Your task to perform on an android device: Show me the alarms in the clock app Image 0: 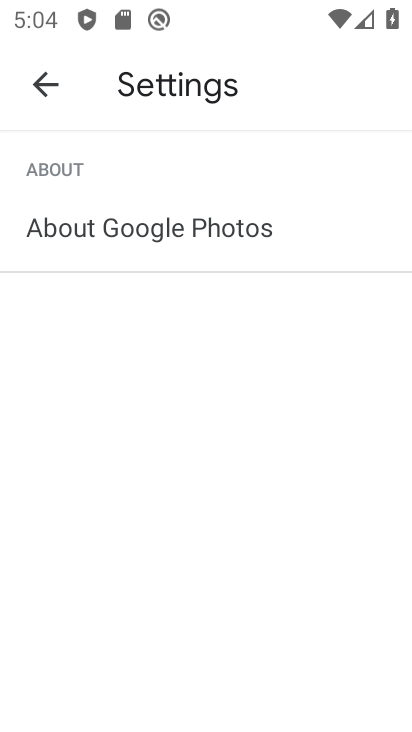
Step 0: press back button
Your task to perform on an android device: Show me the alarms in the clock app Image 1: 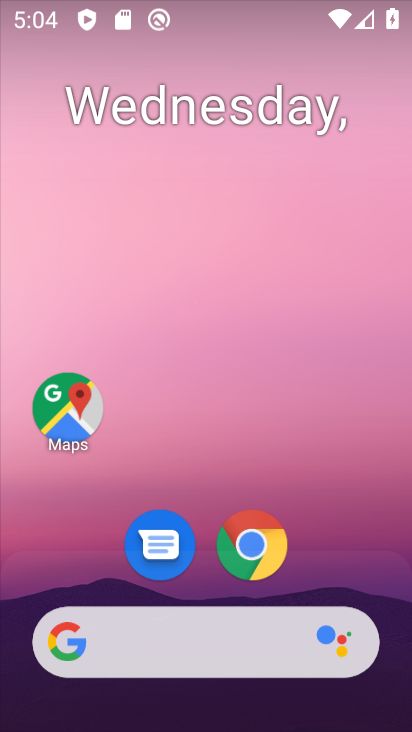
Step 1: drag from (174, 581) to (253, 72)
Your task to perform on an android device: Show me the alarms in the clock app Image 2: 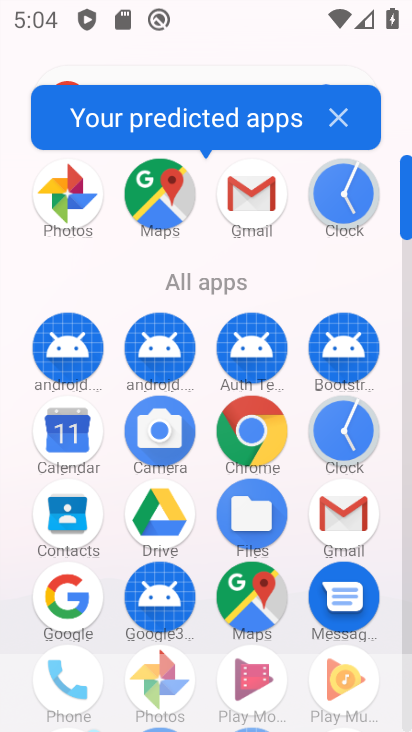
Step 2: click (350, 431)
Your task to perform on an android device: Show me the alarms in the clock app Image 3: 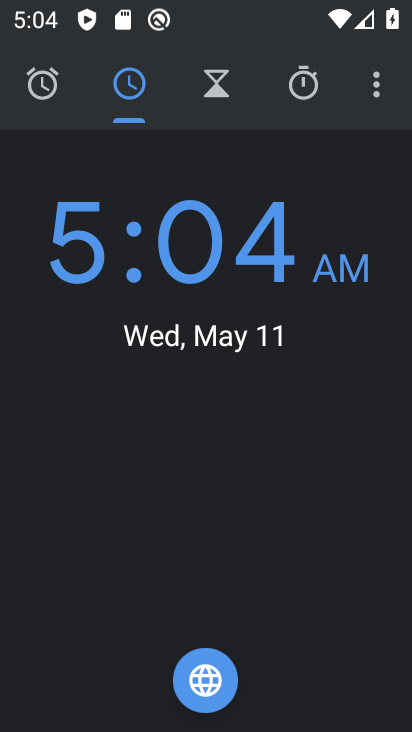
Step 3: click (312, 82)
Your task to perform on an android device: Show me the alarms in the clock app Image 4: 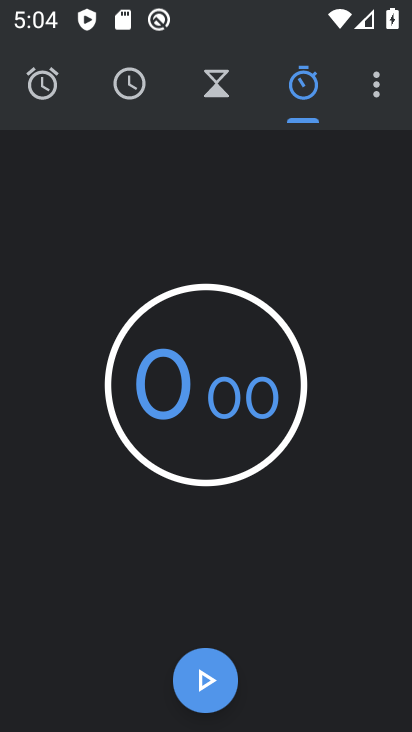
Step 4: click (44, 71)
Your task to perform on an android device: Show me the alarms in the clock app Image 5: 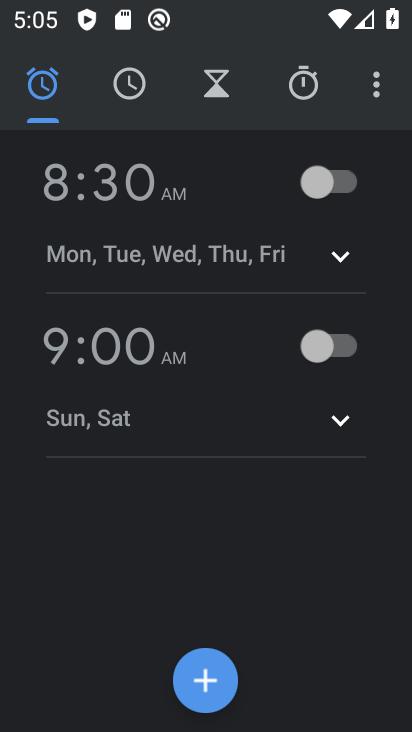
Step 5: task complete